Your task to perform on an android device: star an email in the gmail app Image 0: 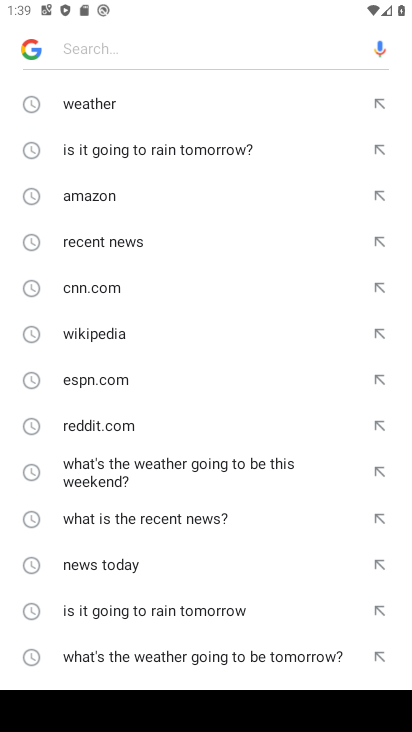
Step 0: press home button
Your task to perform on an android device: star an email in the gmail app Image 1: 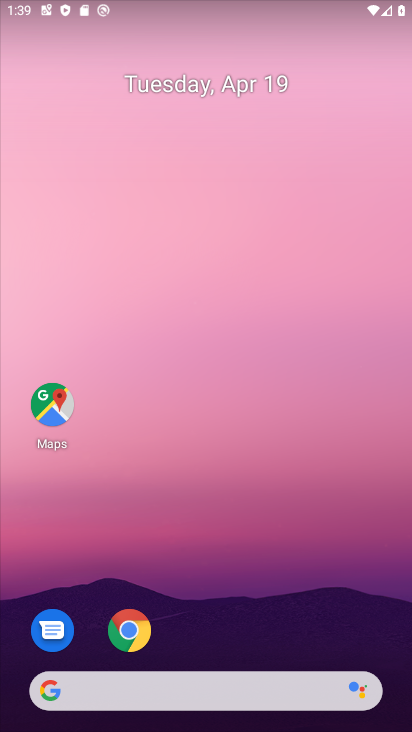
Step 1: drag from (225, 550) to (214, 55)
Your task to perform on an android device: star an email in the gmail app Image 2: 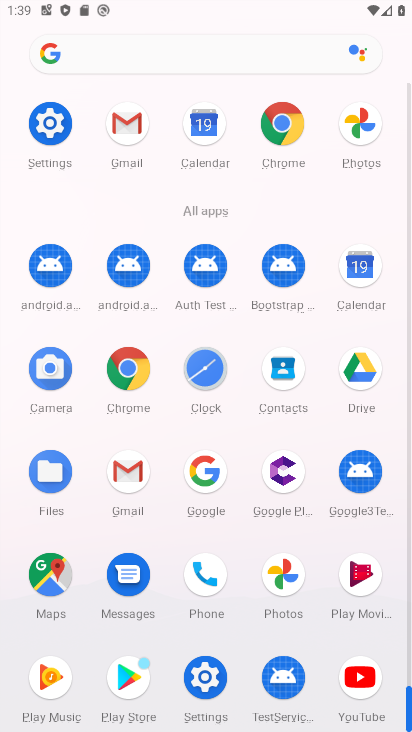
Step 2: click (129, 482)
Your task to perform on an android device: star an email in the gmail app Image 3: 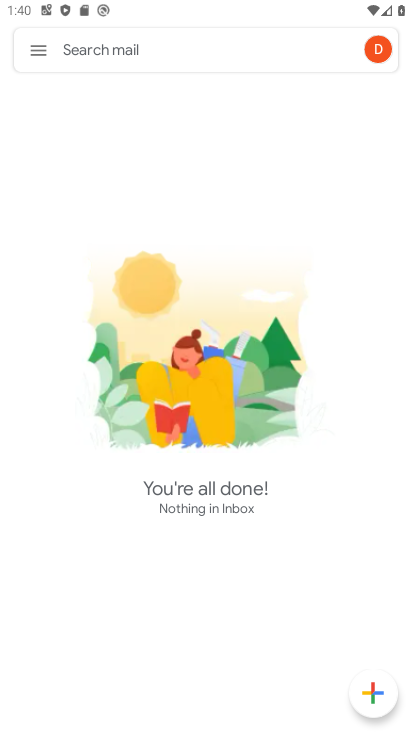
Step 3: click (39, 48)
Your task to perform on an android device: star an email in the gmail app Image 4: 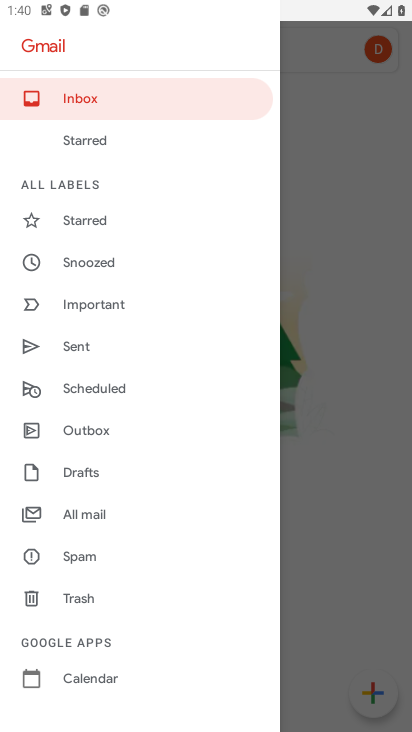
Step 4: click (82, 511)
Your task to perform on an android device: star an email in the gmail app Image 5: 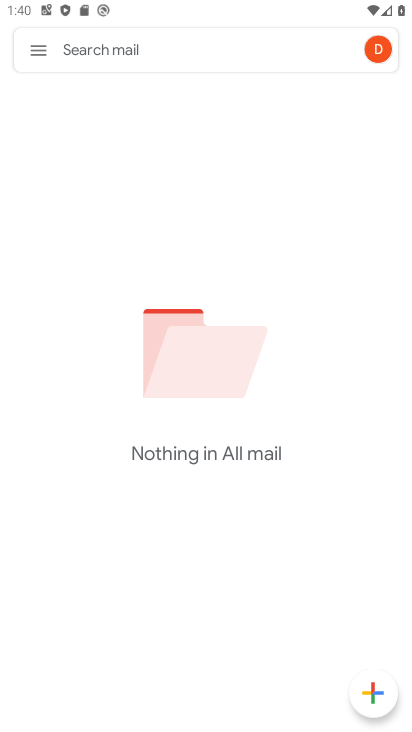
Step 5: task complete